Your task to perform on an android device: see sites visited before in the chrome app Image 0: 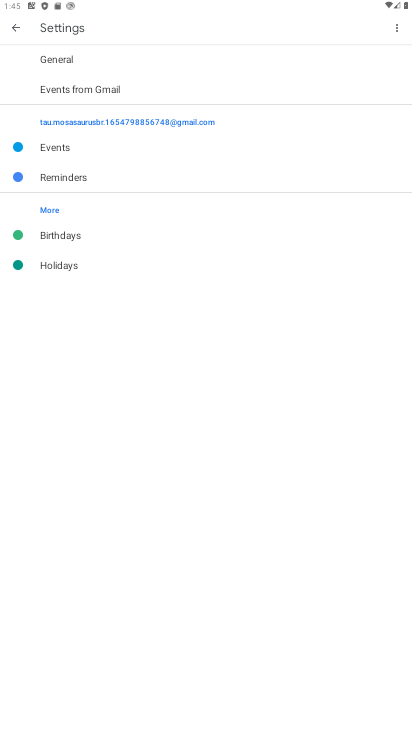
Step 0: press home button
Your task to perform on an android device: see sites visited before in the chrome app Image 1: 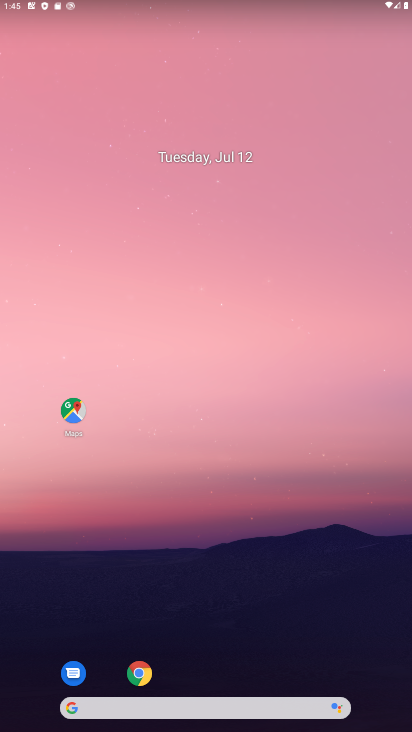
Step 1: drag from (220, 601) to (284, 439)
Your task to perform on an android device: see sites visited before in the chrome app Image 2: 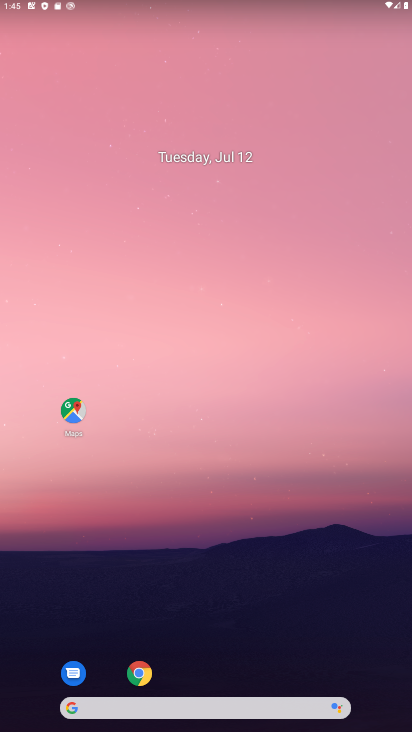
Step 2: drag from (228, 684) to (264, 217)
Your task to perform on an android device: see sites visited before in the chrome app Image 3: 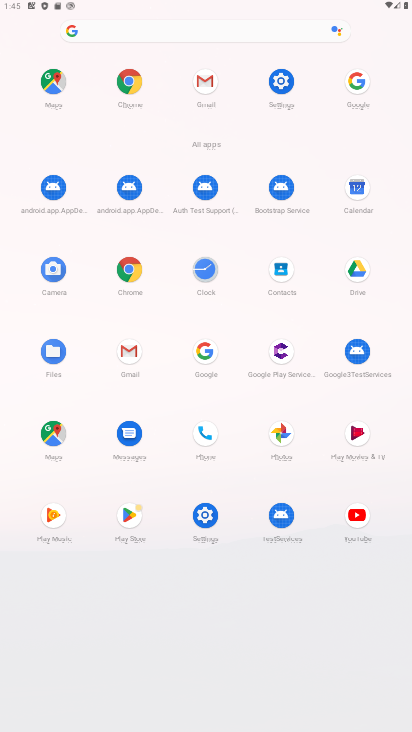
Step 3: click (126, 77)
Your task to perform on an android device: see sites visited before in the chrome app Image 4: 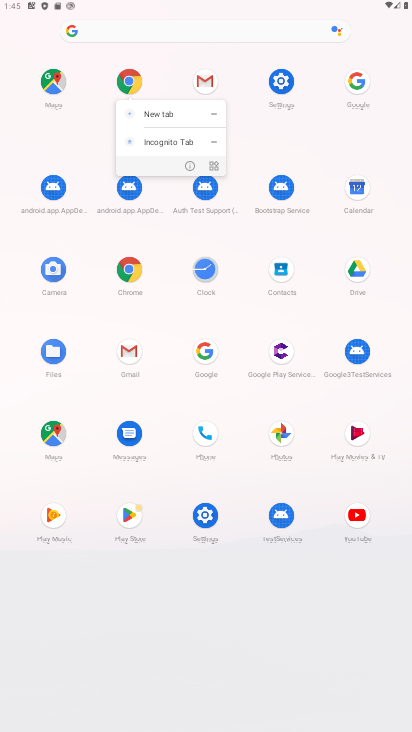
Step 4: click (134, 88)
Your task to perform on an android device: see sites visited before in the chrome app Image 5: 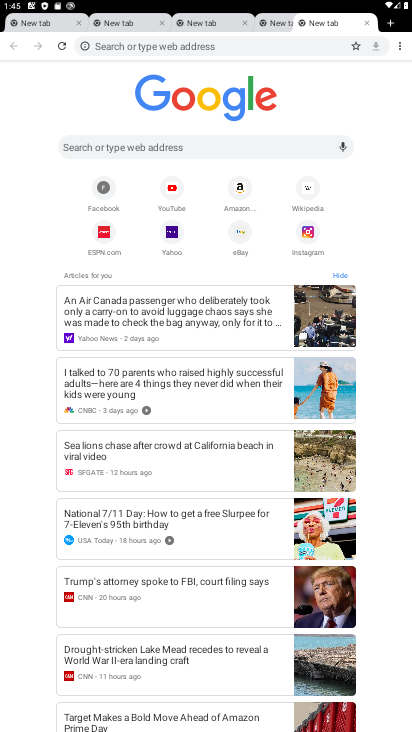
Step 5: task complete